Your task to perform on an android device: toggle airplane mode Image 0: 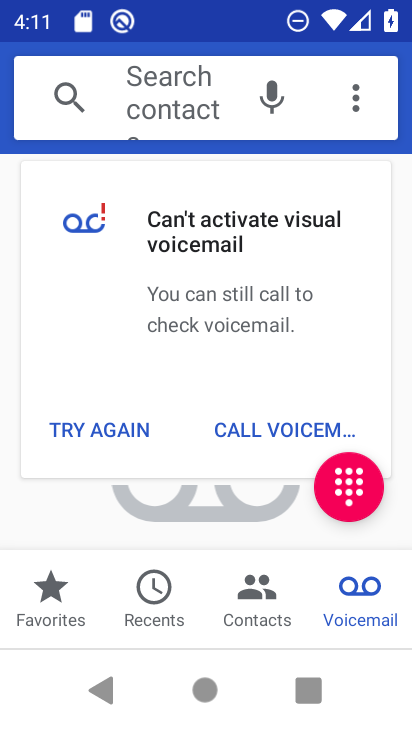
Step 0: press home button
Your task to perform on an android device: toggle airplane mode Image 1: 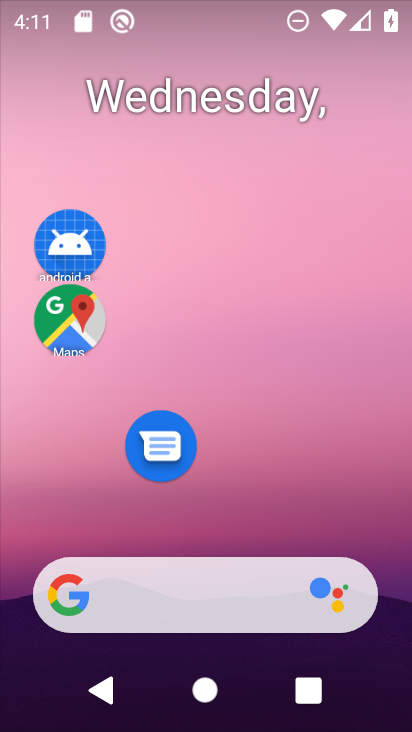
Step 1: drag from (239, 527) to (243, 191)
Your task to perform on an android device: toggle airplane mode Image 2: 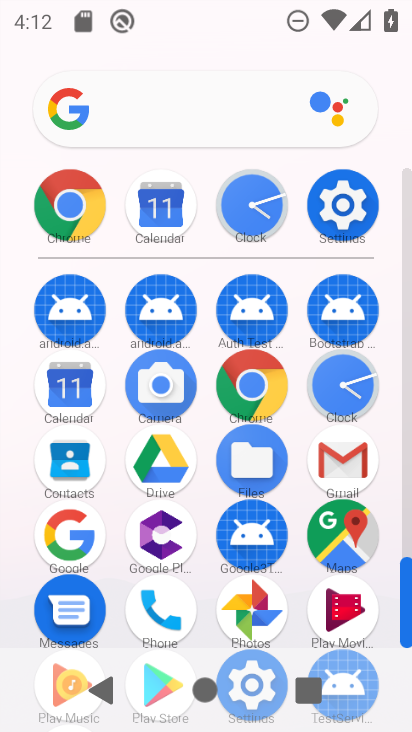
Step 2: click (351, 197)
Your task to perform on an android device: toggle airplane mode Image 3: 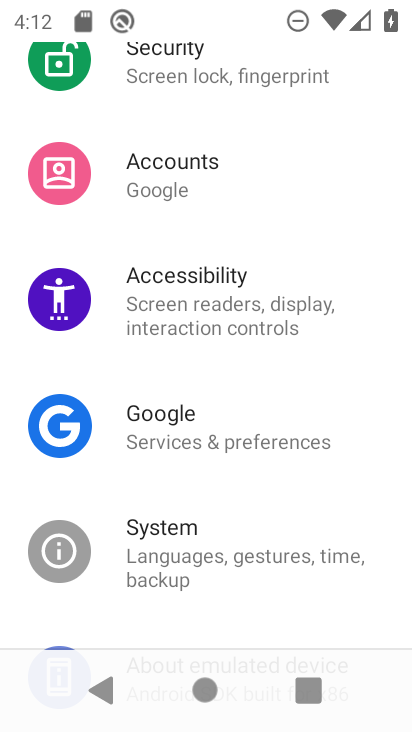
Step 3: drag from (130, 171) to (161, 641)
Your task to perform on an android device: toggle airplane mode Image 4: 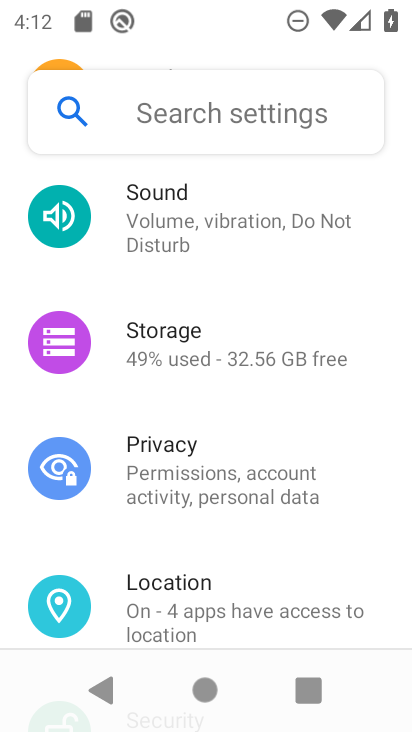
Step 4: drag from (210, 272) to (216, 469)
Your task to perform on an android device: toggle airplane mode Image 5: 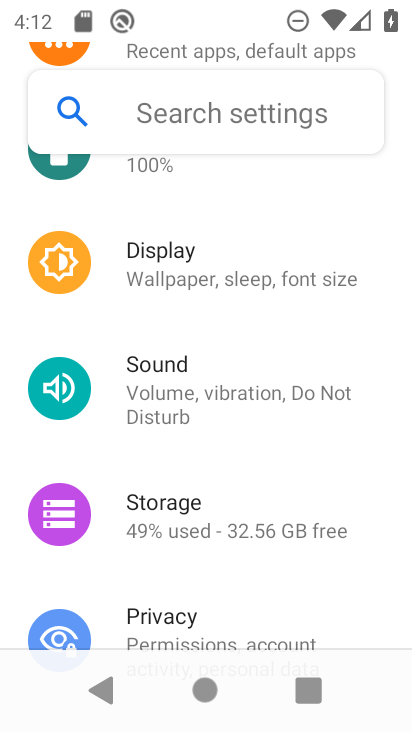
Step 5: drag from (234, 191) to (259, 455)
Your task to perform on an android device: toggle airplane mode Image 6: 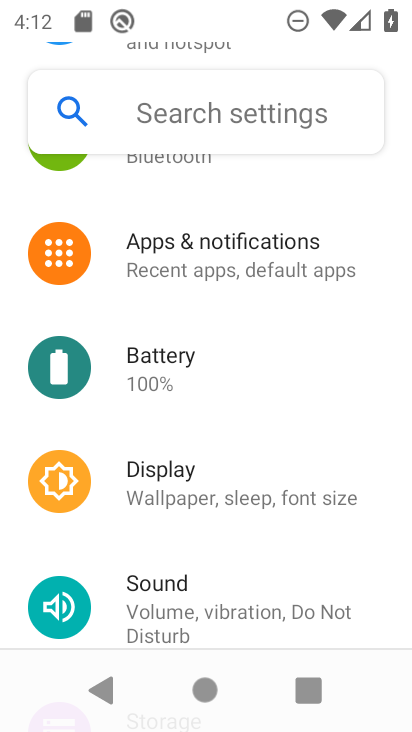
Step 6: drag from (244, 221) to (262, 499)
Your task to perform on an android device: toggle airplane mode Image 7: 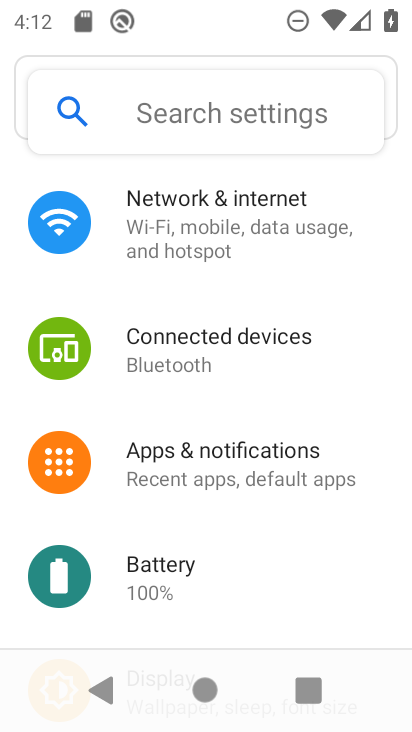
Step 7: click (241, 276)
Your task to perform on an android device: toggle airplane mode Image 8: 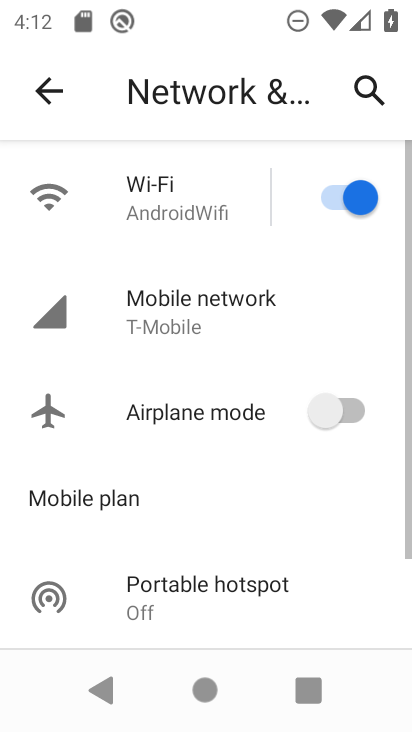
Step 8: click (319, 411)
Your task to perform on an android device: toggle airplane mode Image 9: 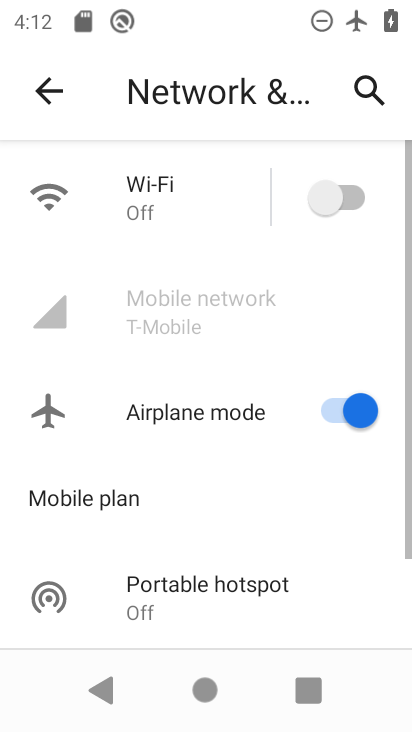
Step 9: task complete